Your task to perform on an android device: turn smart compose on in the gmail app Image 0: 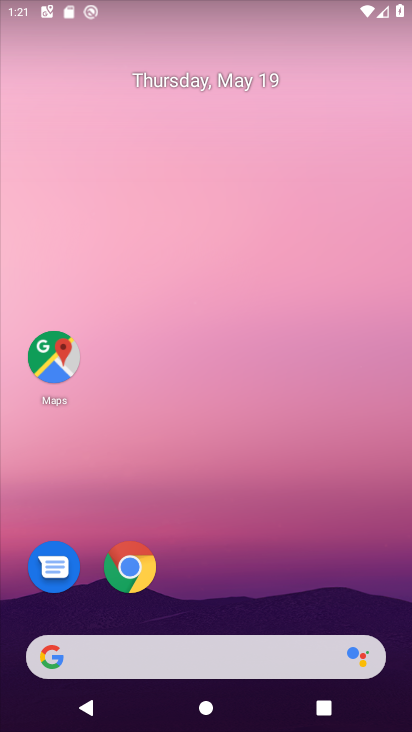
Step 0: drag from (255, 527) to (268, 267)
Your task to perform on an android device: turn smart compose on in the gmail app Image 1: 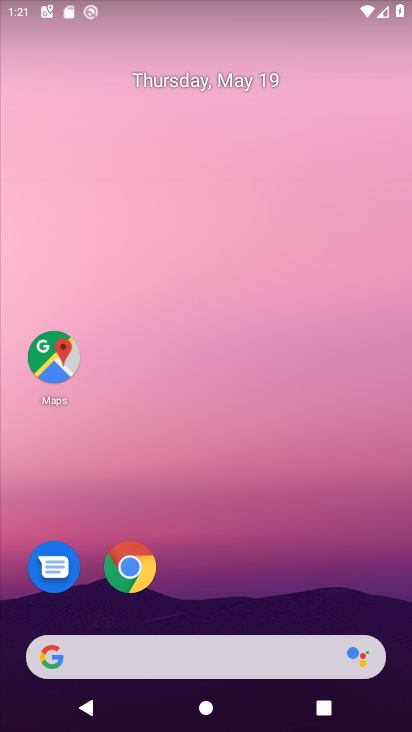
Step 1: drag from (211, 588) to (195, 78)
Your task to perform on an android device: turn smart compose on in the gmail app Image 2: 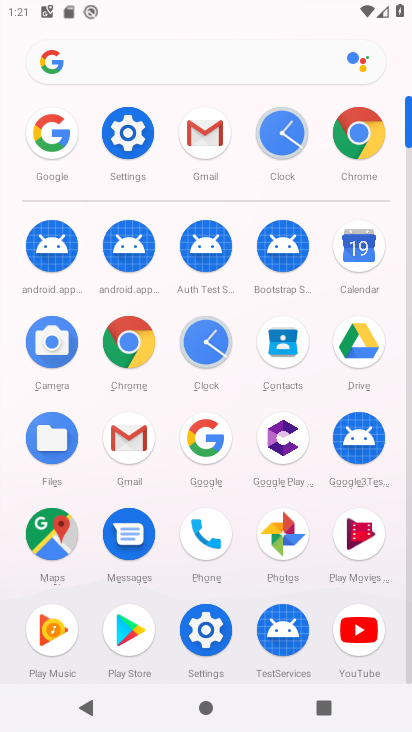
Step 2: click (206, 128)
Your task to perform on an android device: turn smart compose on in the gmail app Image 3: 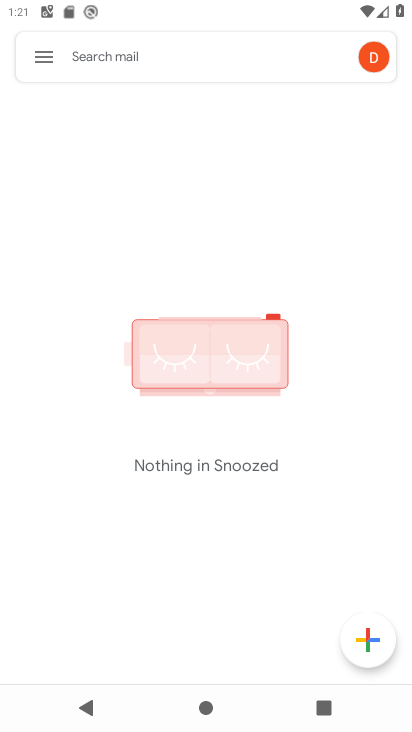
Step 3: click (52, 63)
Your task to perform on an android device: turn smart compose on in the gmail app Image 4: 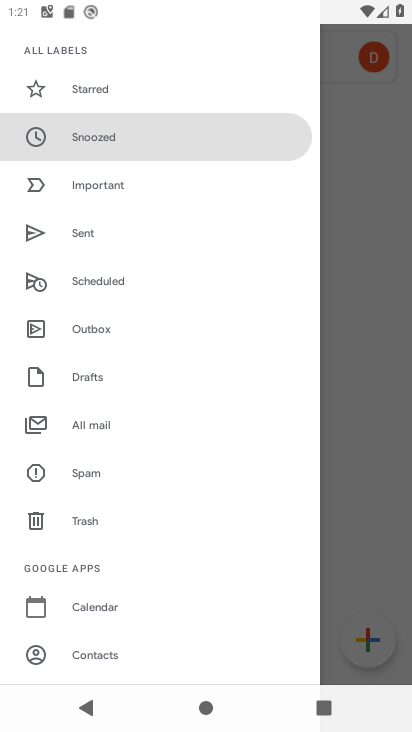
Step 4: drag from (155, 556) to (145, 91)
Your task to perform on an android device: turn smart compose on in the gmail app Image 5: 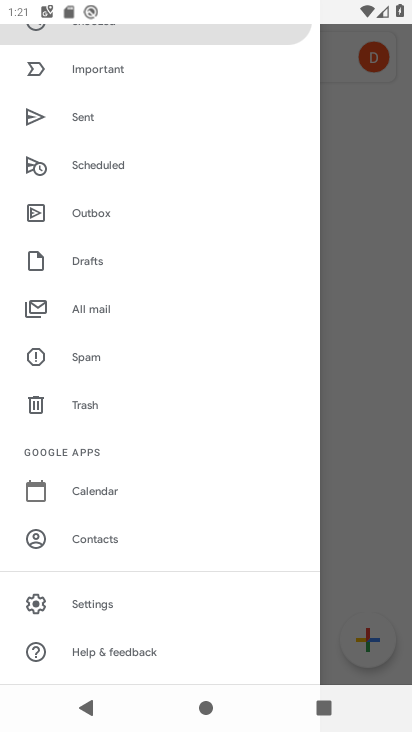
Step 5: click (148, 601)
Your task to perform on an android device: turn smart compose on in the gmail app Image 6: 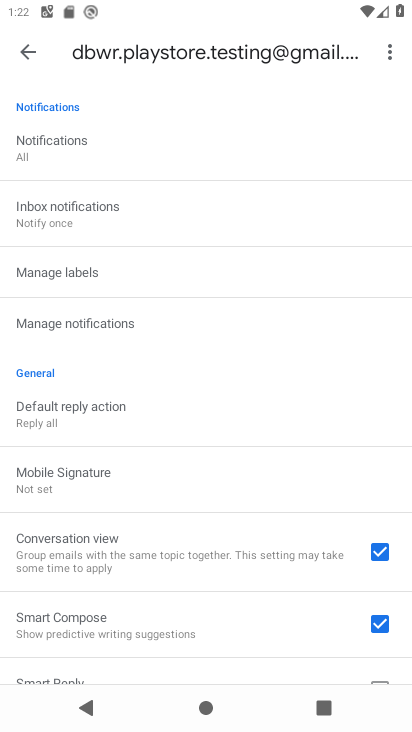
Step 6: task complete